Your task to perform on an android device: read, delete, or share a saved page in the chrome app Image 0: 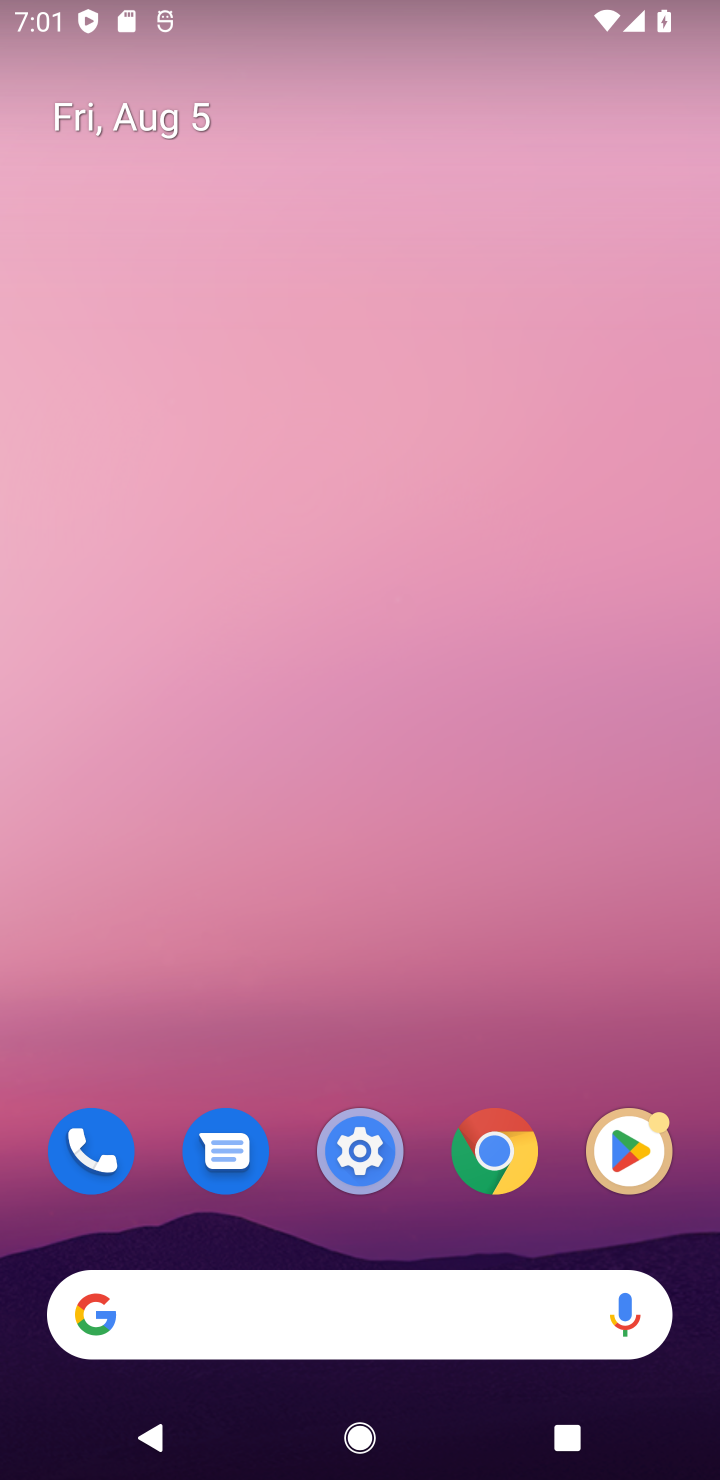
Step 0: drag from (406, 787) to (691, 103)
Your task to perform on an android device: read, delete, or share a saved page in the chrome app Image 1: 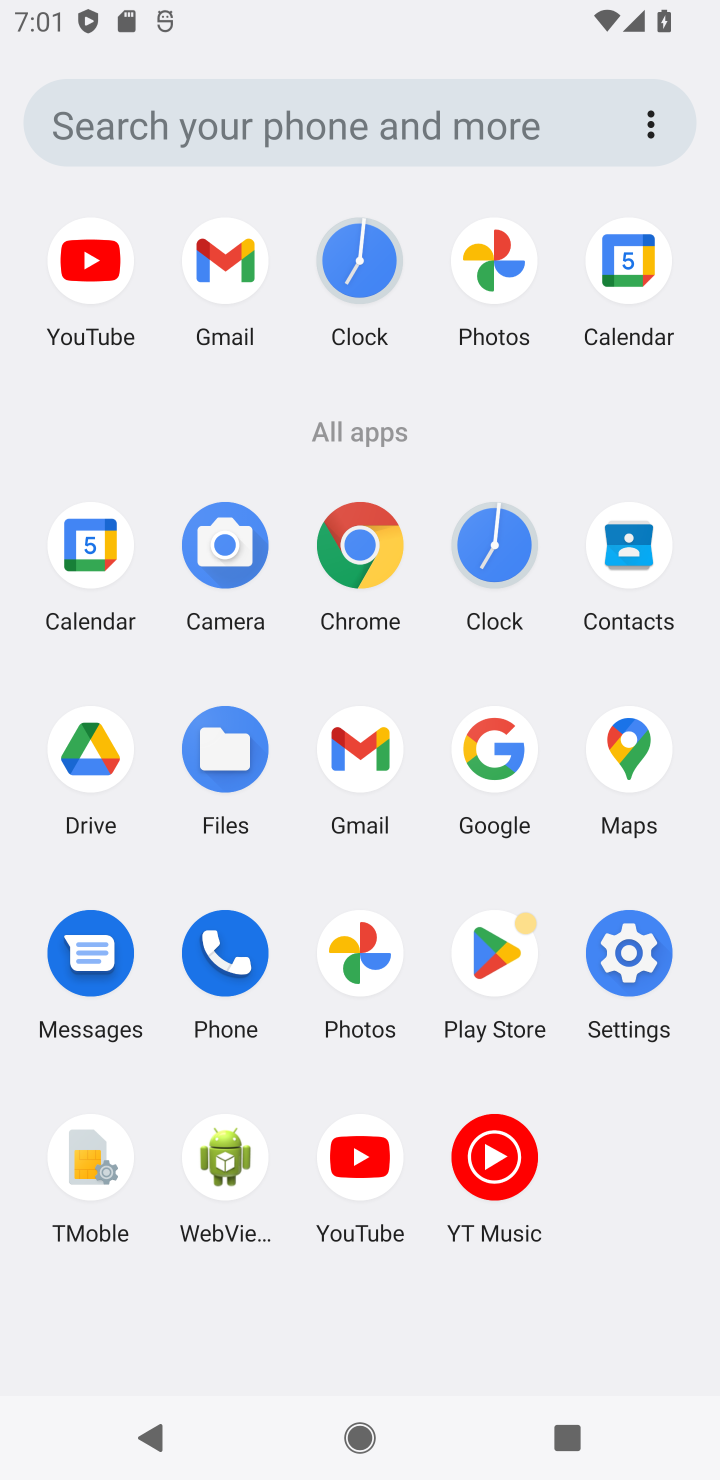
Step 1: click (380, 581)
Your task to perform on an android device: read, delete, or share a saved page in the chrome app Image 2: 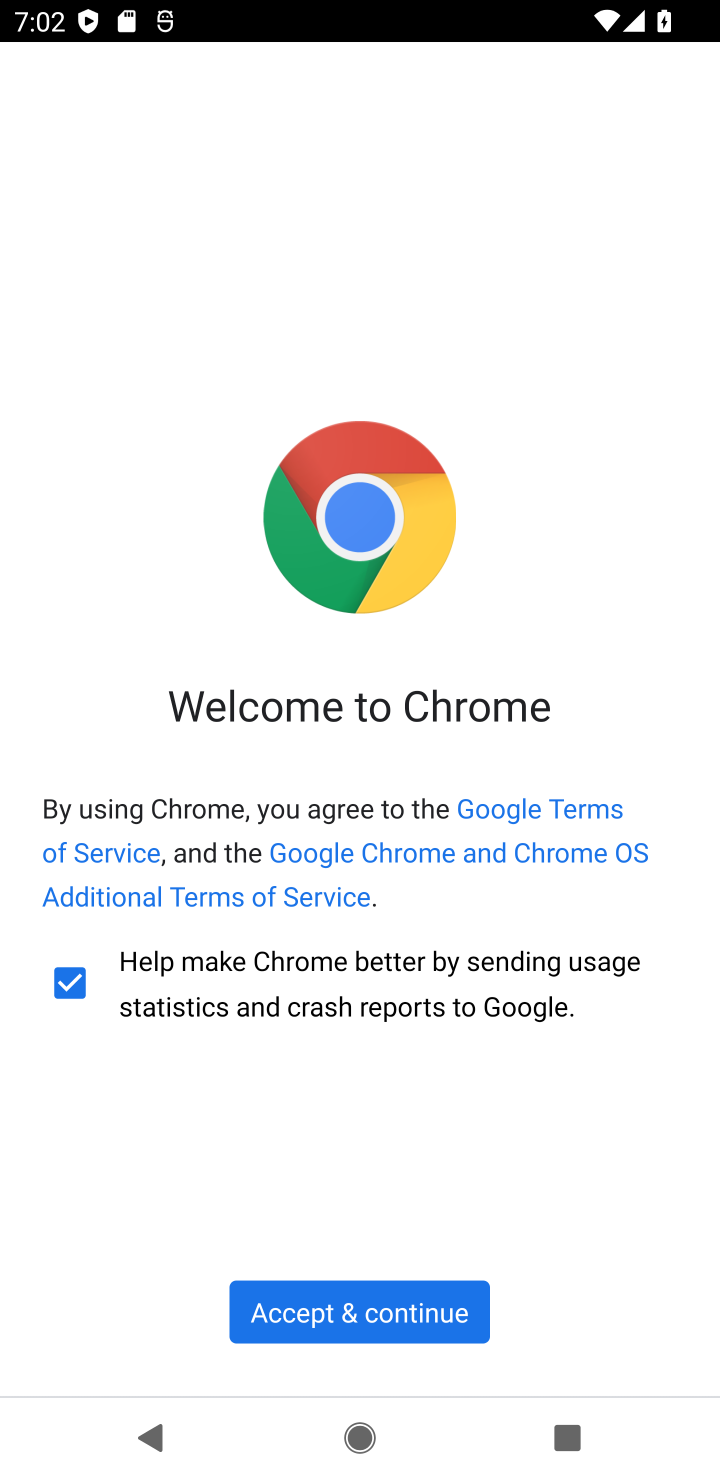
Step 2: click (342, 1324)
Your task to perform on an android device: read, delete, or share a saved page in the chrome app Image 3: 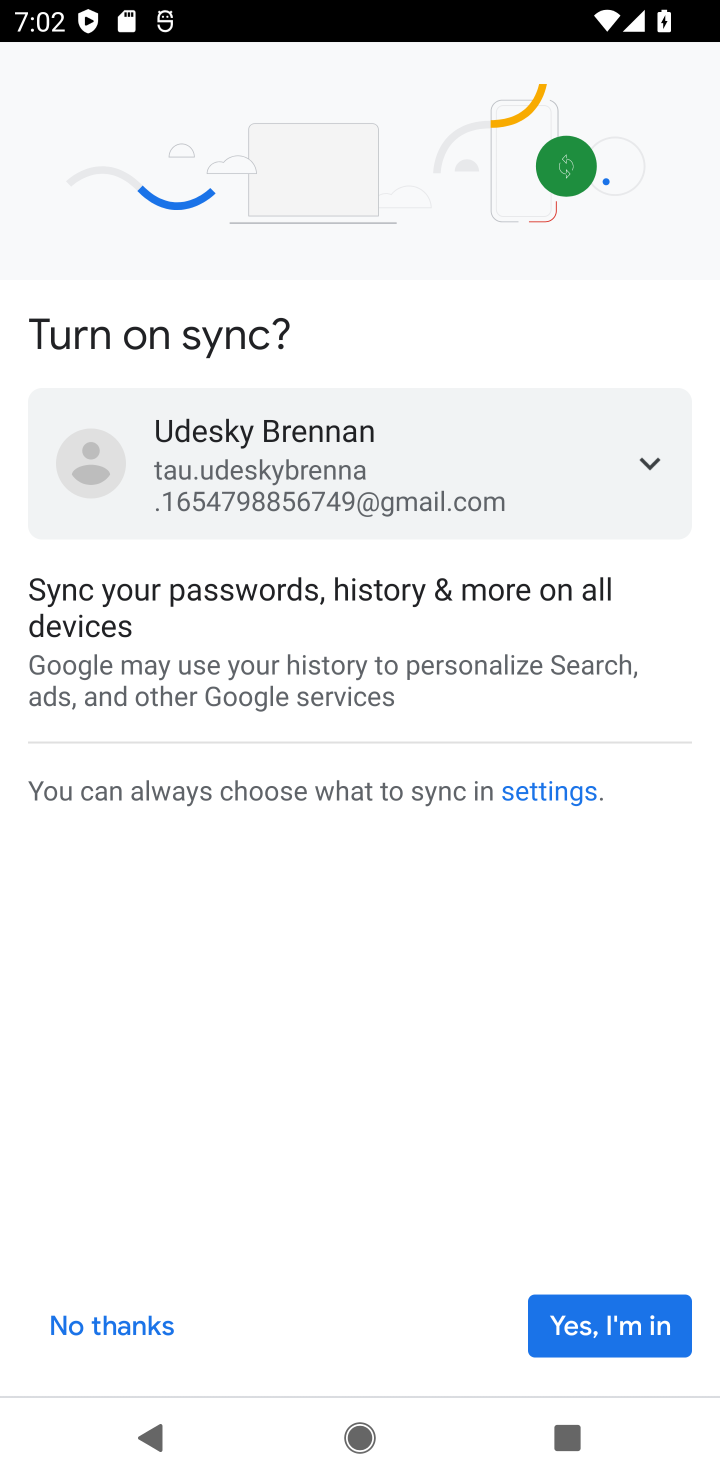
Step 3: click (622, 1320)
Your task to perform on an android device: read, delete, or share a saved page in the chrome app Image 4: 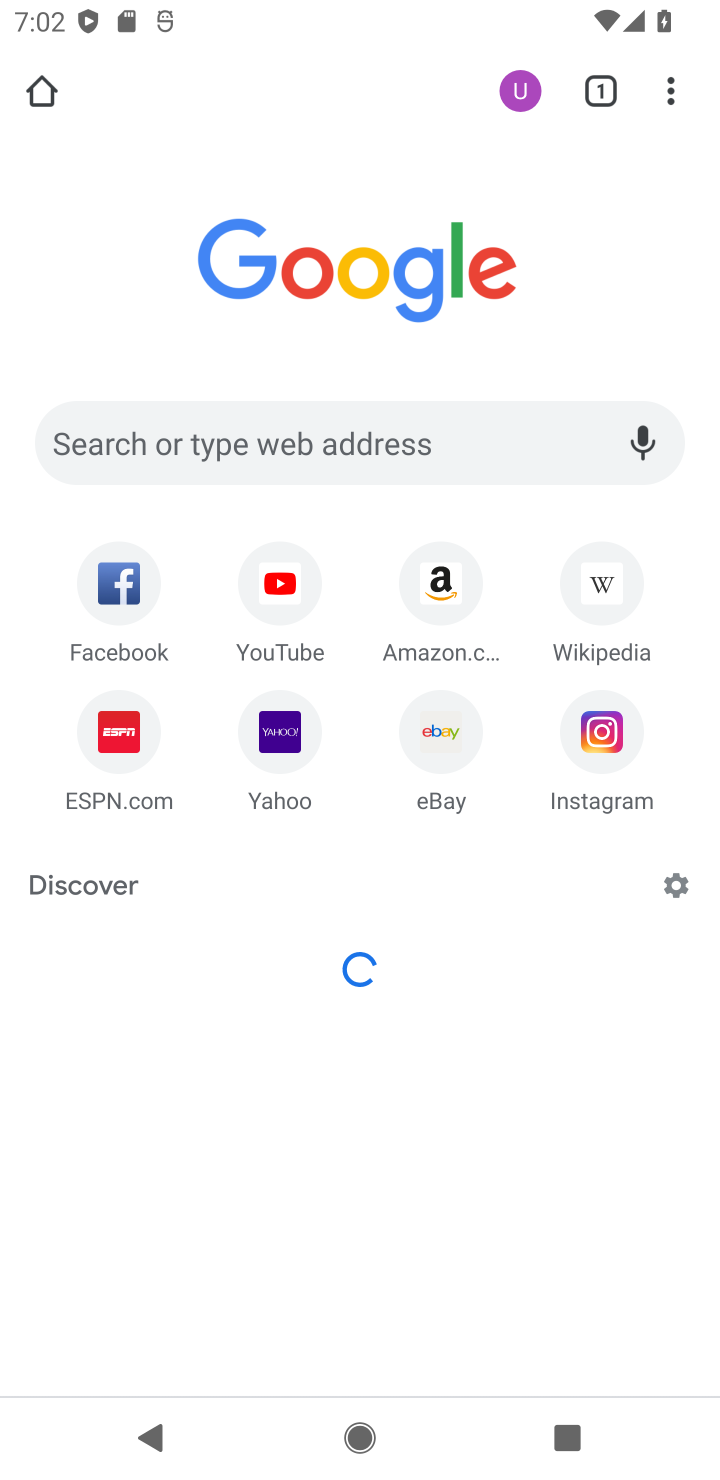
Step 4: click (673, 79)
Your task to perform on an android device: read, delete, or share a saved page in the chrome app Image 5: 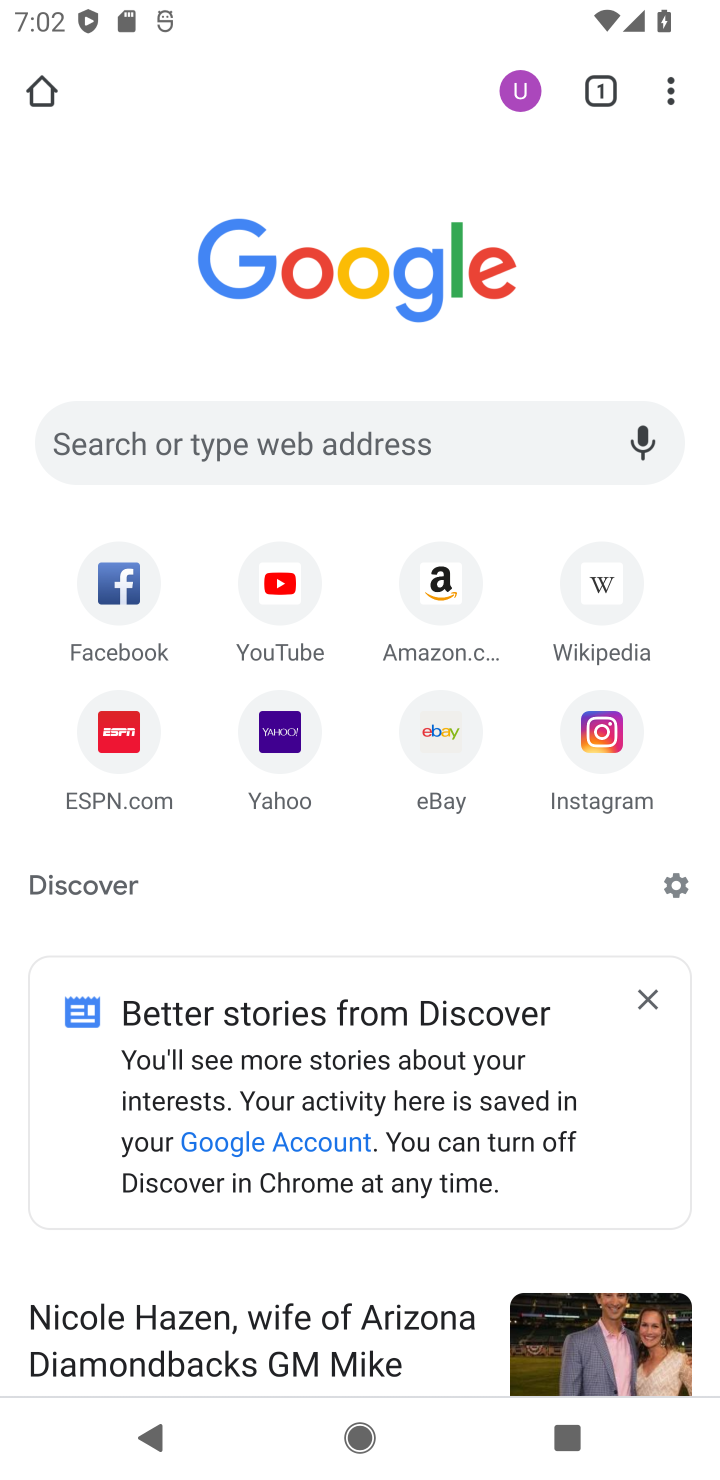
Step 5: click (673, 83)
Your task to perform on an android device: read, delete, or share a saved page in the chrome app Image 6: 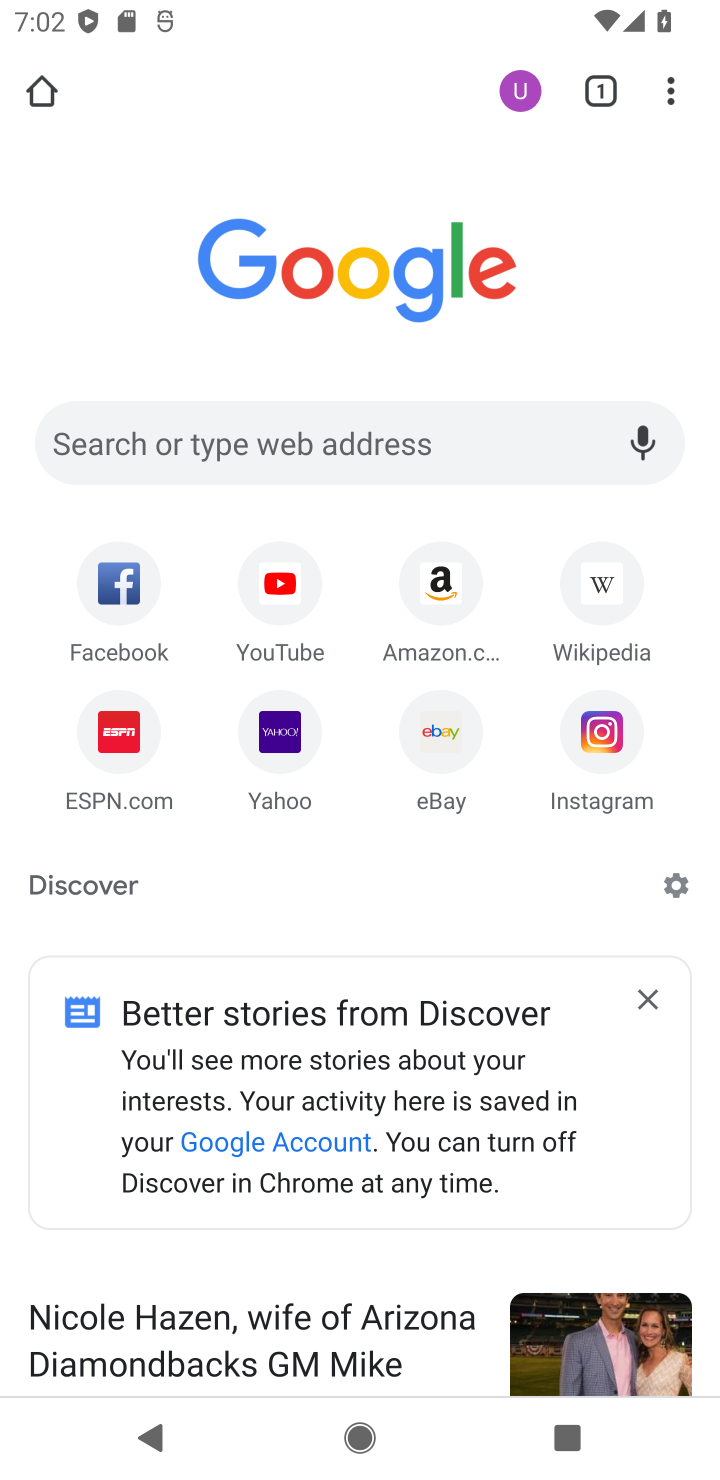
Step 6: task complete